Your task to perform on an android device: make emails show in primary in the gmail app Image 0: 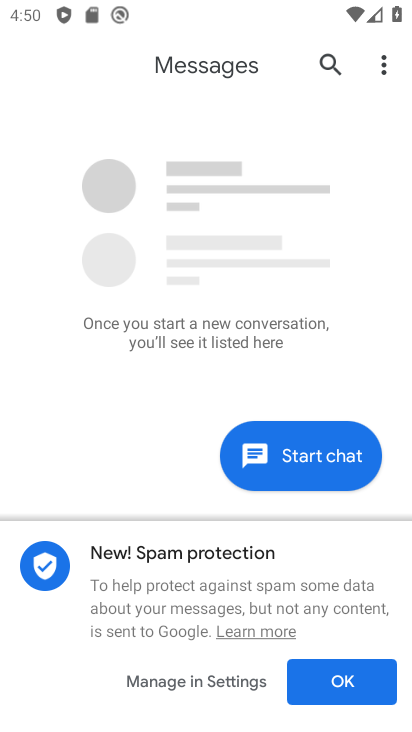
Step 0: press back button
Your task to perform on an android device: make emails show in primary in the gmail app Image 1: 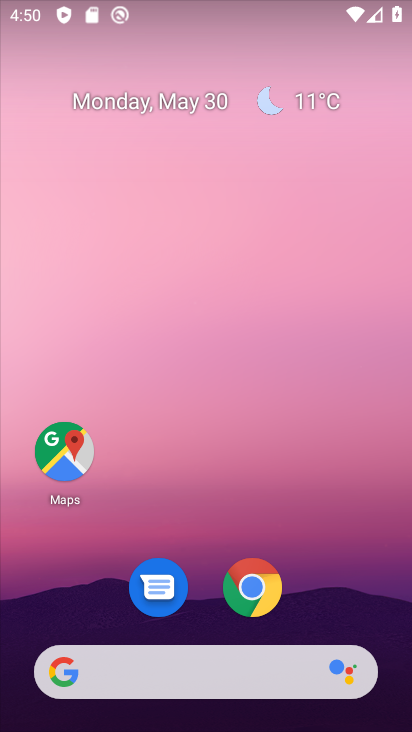
Step 1: drag from (341, 565) to (149, 2)
Your task to perform on an android device: make emails show in primary in the gmail app Image 2: 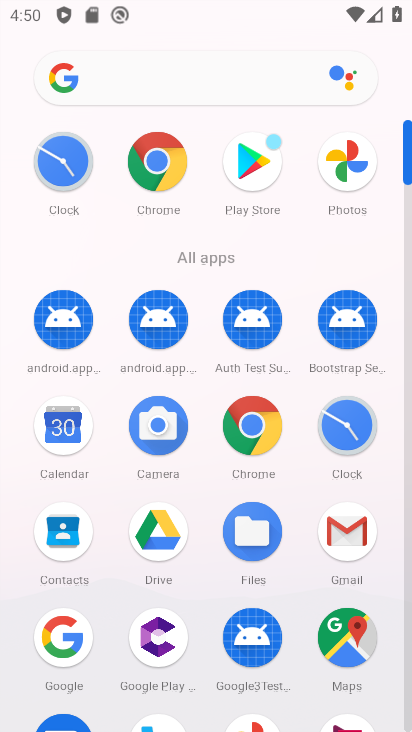
Step 2: drag from (18, 572) to (10, 271)
Your task to perform on an android device: make emails show in primary in the gmail app Image 3: 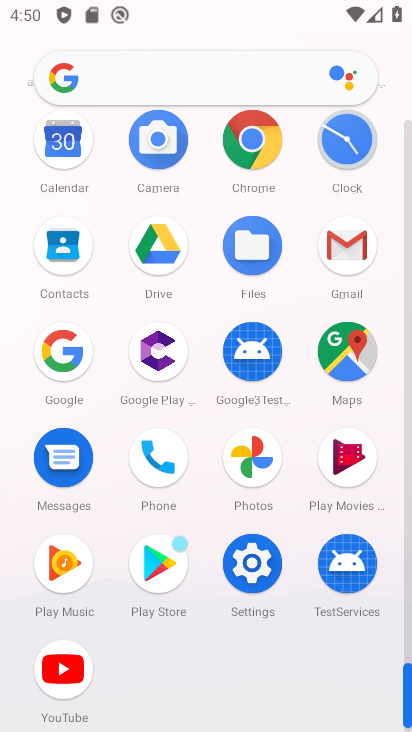
Step 3: click (346, 237)
Your task to perform on an android device: make emails show in primary in the gmail app Image 4: 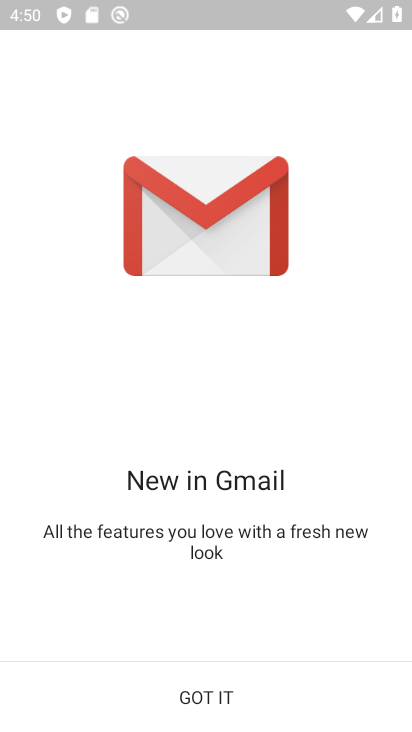
Step 4: click (277, 697)
Your task to perform on an android device: make emails show in primary in the gmail app Image 5: 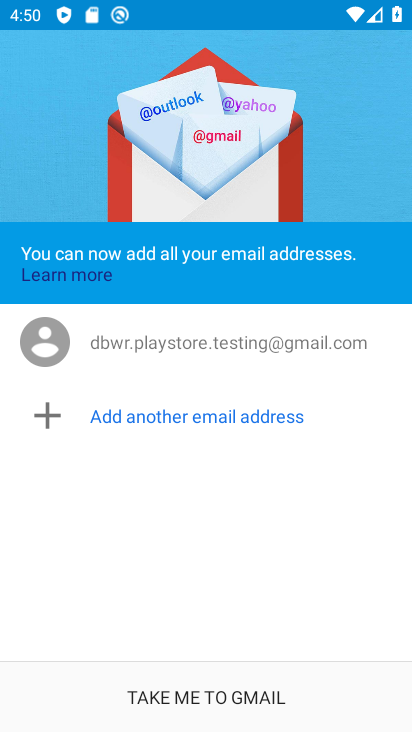
Step 5: click (215, 689)
Your task to perform on an android device: make emails show in primary in the gmail app Image 6: 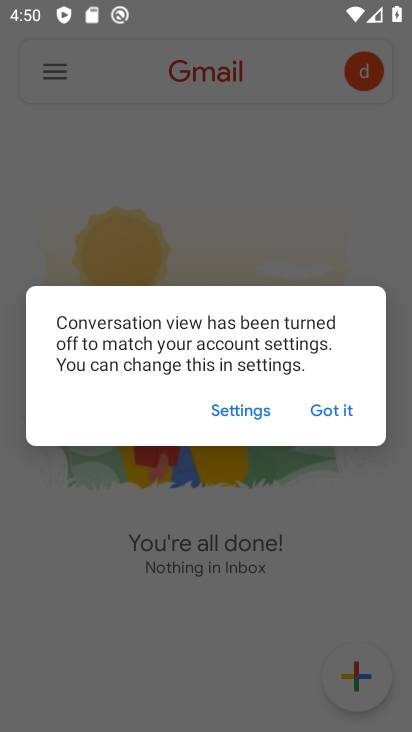
Step 6: click (322, 405)
Your task to perform on an android device: make emails show in primary in the gmail app Image 7: 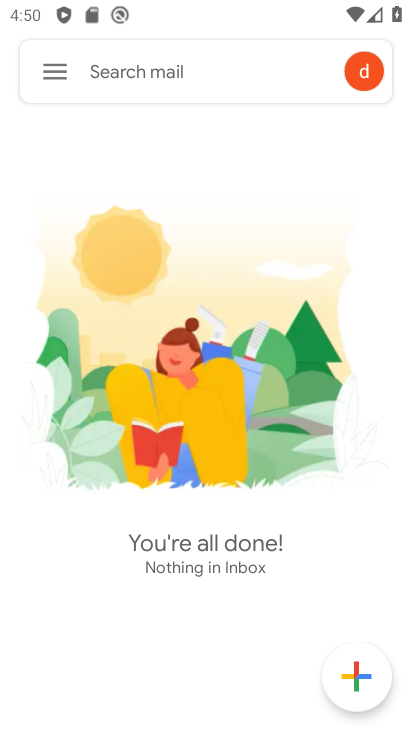
Step 7: click (55, 61)
Your task to perform on an android device: make emails show in primary in the gmail app Image 8: 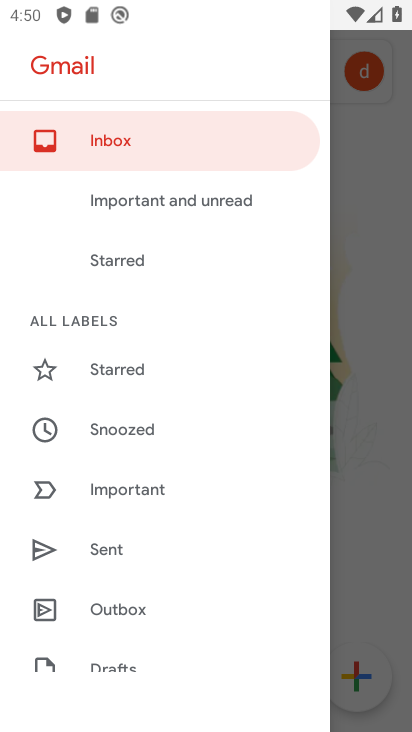
Step 8: drag from (175, 455) to (203, 113)
Your task to perform on an android device: make emails show in primary in the gmail app Image 9: 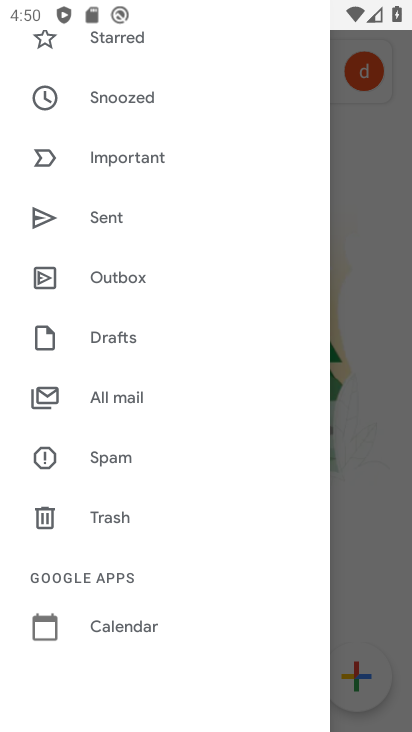
Step 9: click (120, 395)
Your task to perform on an android device: make emails show in primary in the gmail app Image 10: 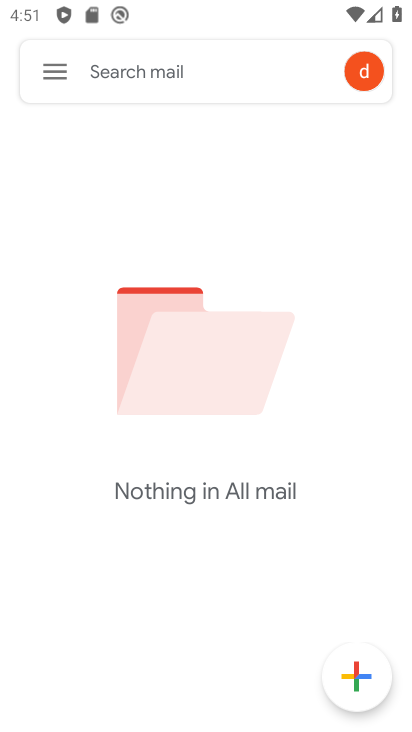
Step 10: click (57, 64)
Your task to perform on an android device: make emails show in primary in the gmail app Image 11: 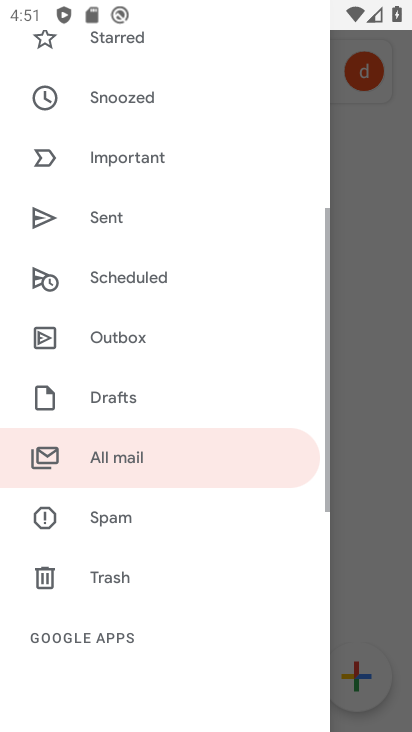
Step 11: drag from (180, 124) to (244, 569)
Your task to perform on an android device: make emails show in primary in the gmail app Image 12: 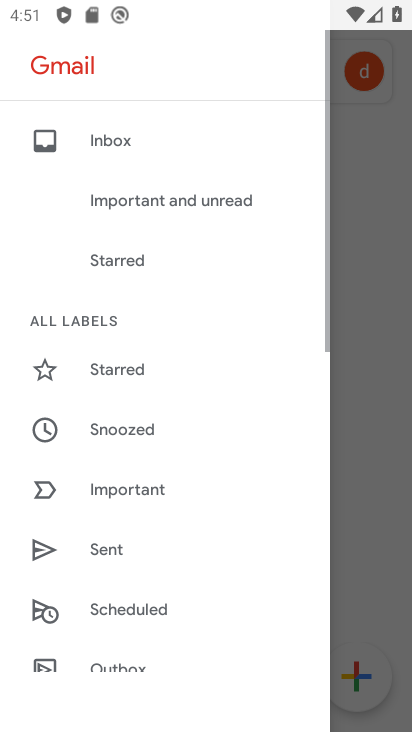
Step 12: drag from (195, 149) to (196, 503)
Your task to perform on an android device: make emails show in primary in the gmail app Image 13: 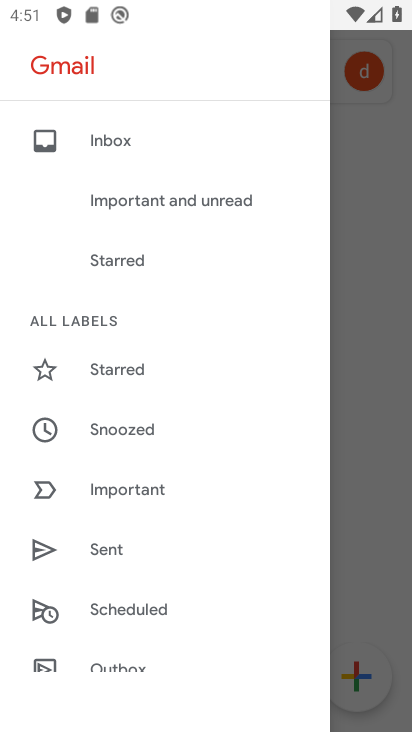
Step 13: drag from (196, 548) to (196, 101)
Your task to perform on an android device: make emails show in primary in the gmail app Image 14: 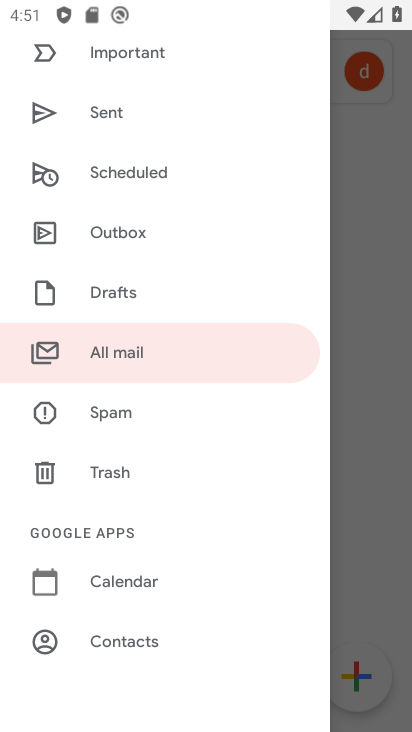
Step 14: drag from (146, 608) to (195, 165)
Your task to perform on an android device: make emails show in primary in the gmail app Image 15: 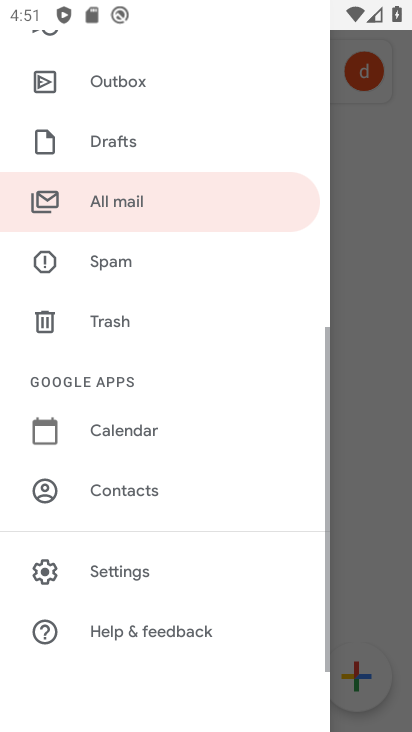
Step 15: click (142, 573)
Your task to perform on an android device: make emails show in primary in the gmail app Image 16: 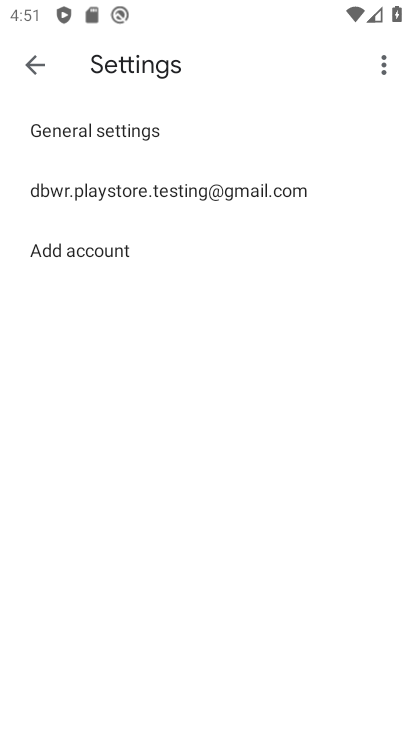
Step 16: click (115, 202)
Your task to perform on an android device: make emails show in primary in the gmail app Image 17: 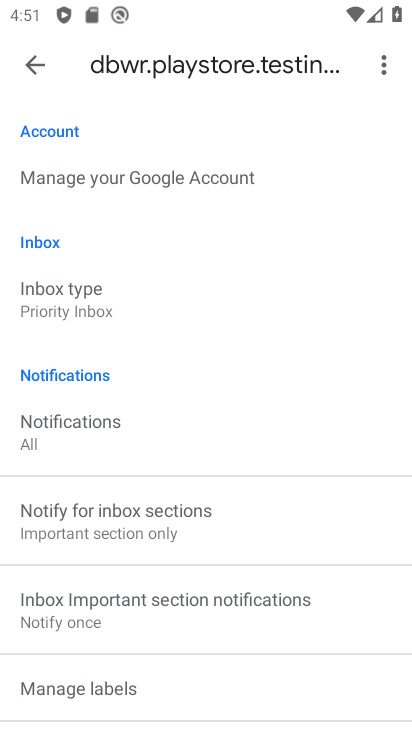
Step 17: task complete